Your task to perform on an android device: change notifications settings Image 0: 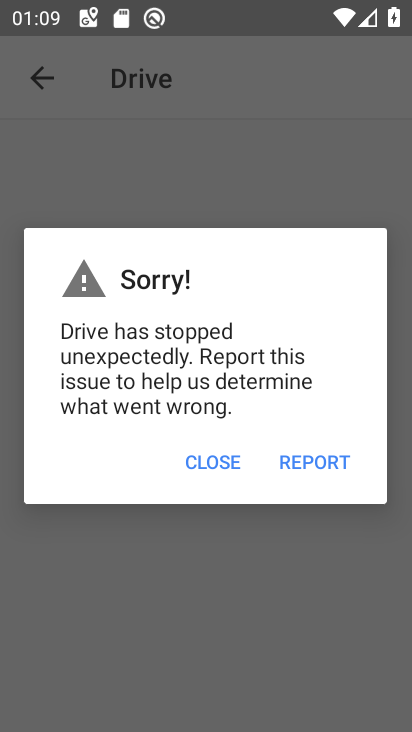
Step 0: press home button
Your task to perform on an android device: change notifications settings Image 1: 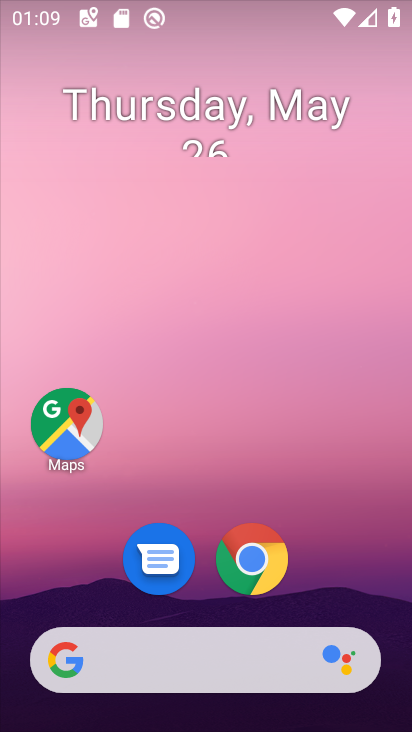
Step 1: drag from (351, 494) to (345, 145)
Your task to perform on an android device: change notifications settings Image 2: 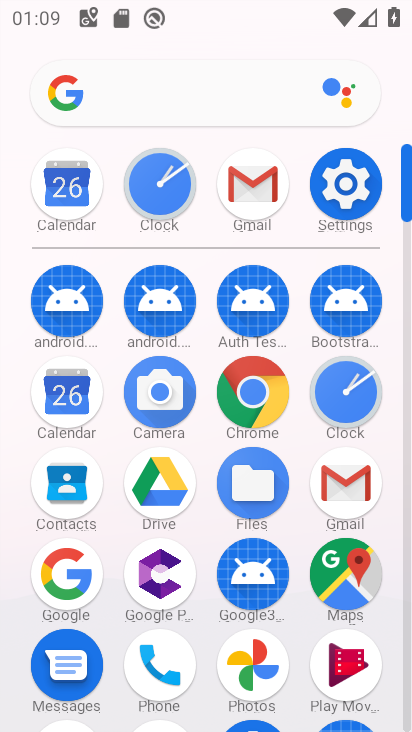
Step 2: click (351, 176)
Your task to perform on an android device: change notifications settings Image 3: 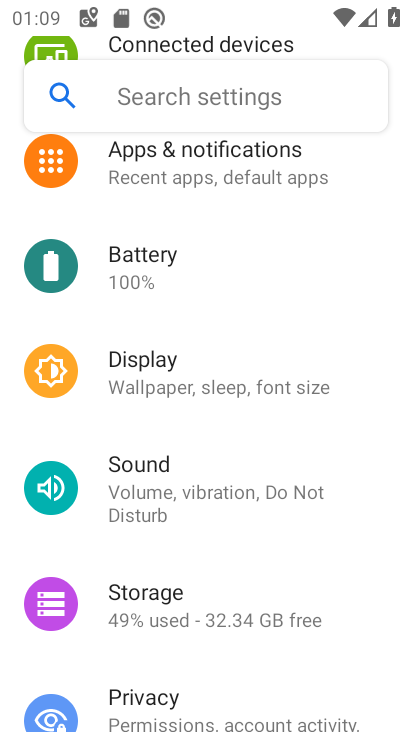
Step 3: click (208, 173)
Your task to perform on an android device: change notifications settings Image 4: 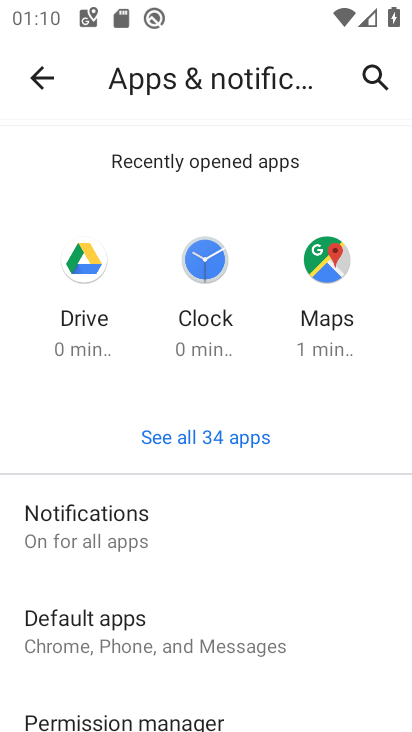
Step 4: click (171, 518)
Your task to perform on an android device: change notifications settings Image 5: 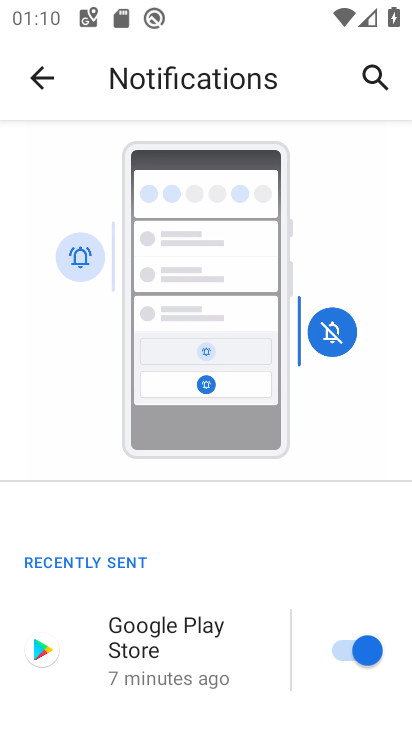
Step 5: task complete